Your task to perform on an android device: add a contact Image 0: 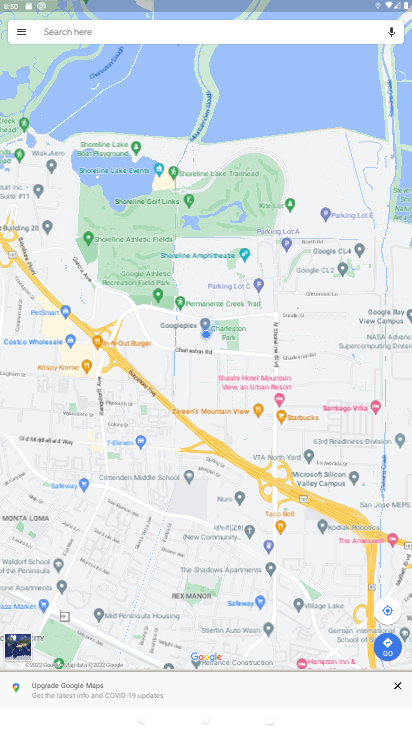
Step 0: press home button
Your task to perform on an android device: add a contact Image 1: 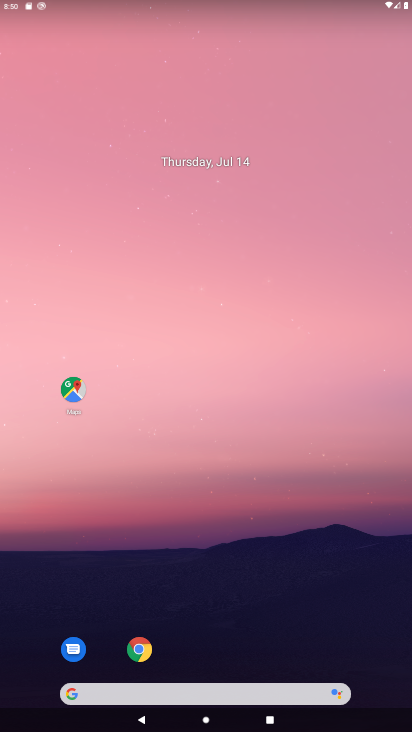
Step 1: drag from (221, 651) to (356, 5)
Your task to perform on an android device: add a contact Image 2: 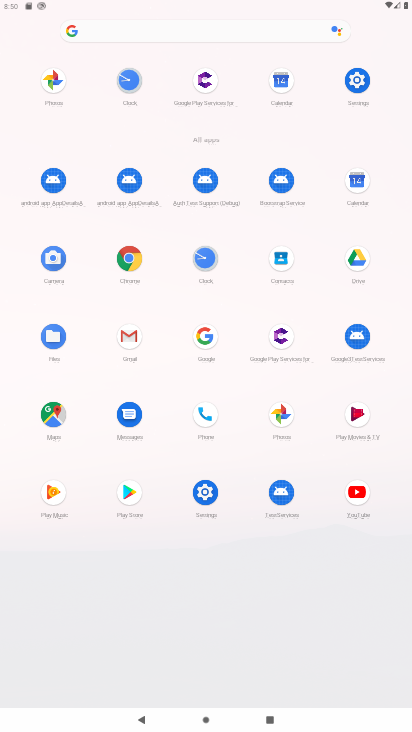
Step 2: click (287, 269)
Your task to perform on an android device: add a contact Image 3: 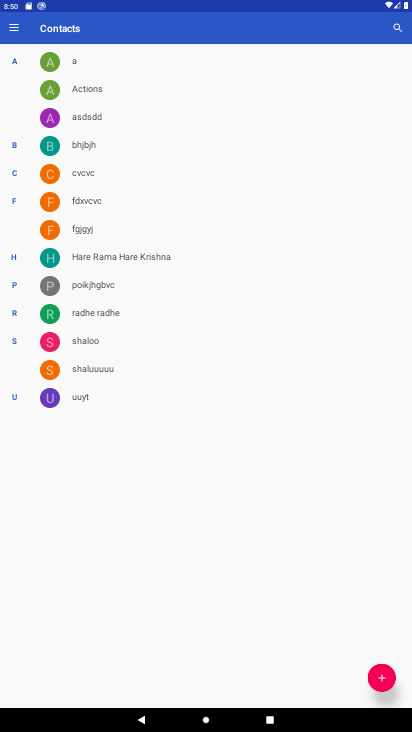
Step 3: click (383, 669)
Your task to perform on an android device: add a contact Image 4: 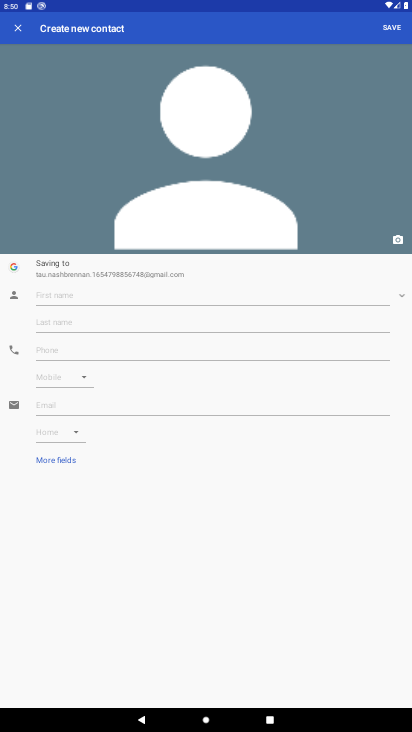
Step 4: click (191, 288)
Your task to perform on an android device: add a contact Image 5: 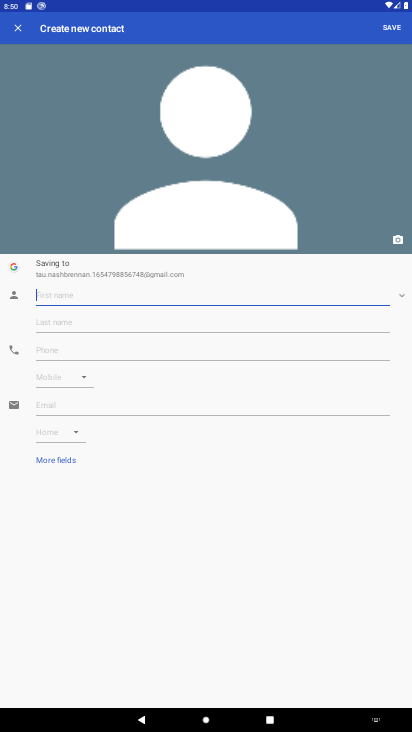
Step 5: type "robin"
Your task to perform on an android device: add a contact Image 6: 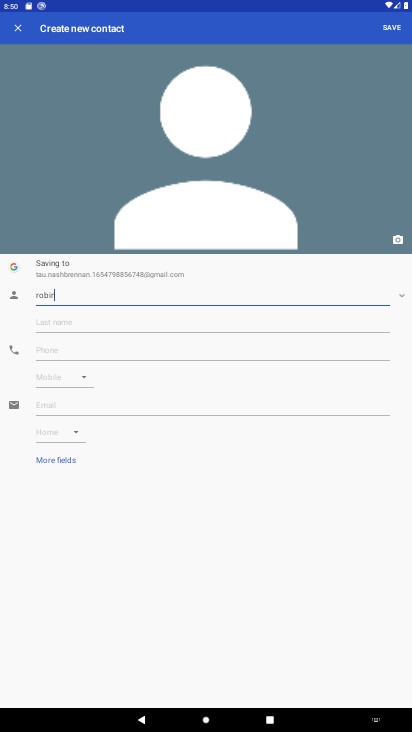
Step 6: click (385, 18)
Your task to perform on an android device: add a contact Image 7: 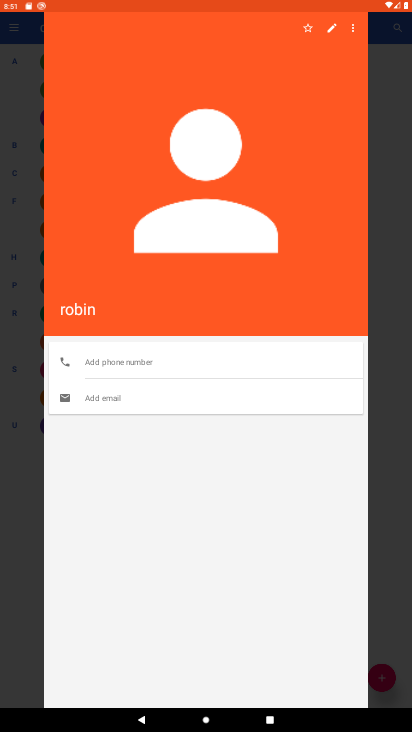
Step 7: task complete